Your task to perform on an android device: Go to Reddit.com Image 0: 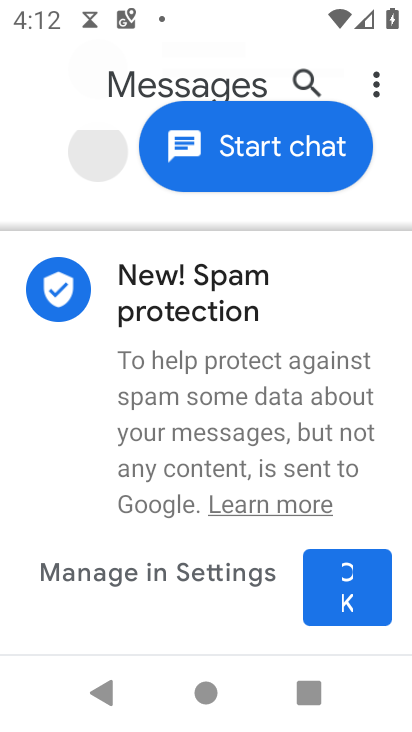
Step 0: click (259, 588)
Your task to perform on an android device: Go to Reddit.com Image 1: 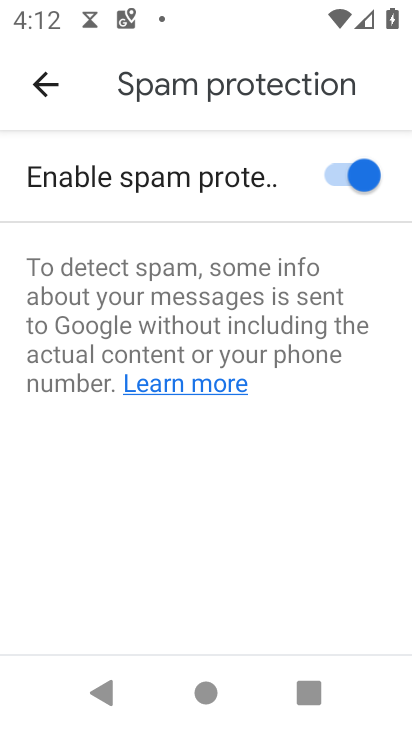
Step 1: press back button
Your task to perform on an android device: Go to Reddit.com Image 2: 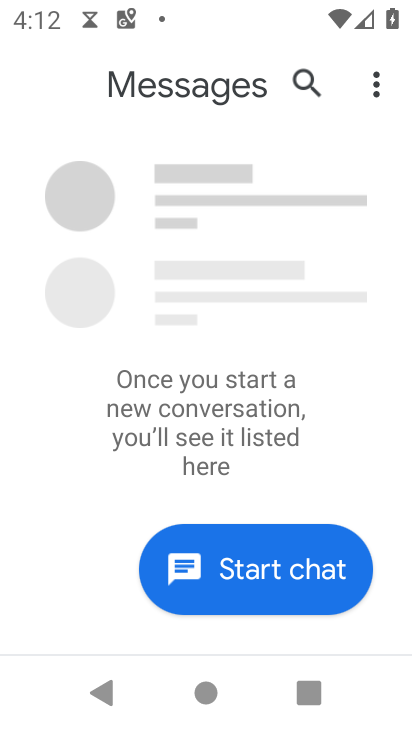
Step 2: press back button
Your task to perform on an android device: Go to Reddit.com Image 3: 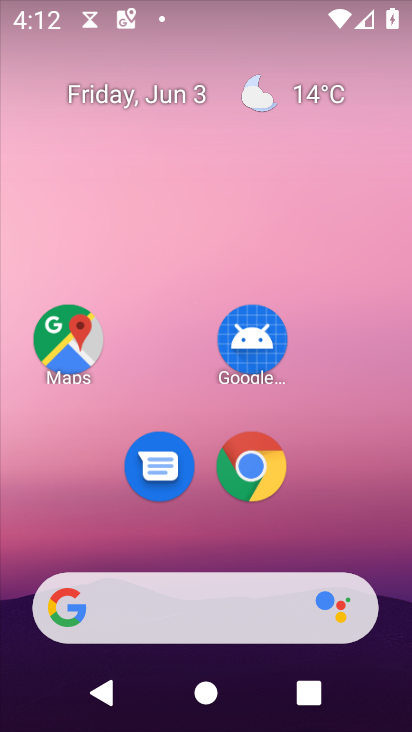
Step 3: click (186, 607)
Your task to perform on an android device: Go to Reddit.com Image 4: 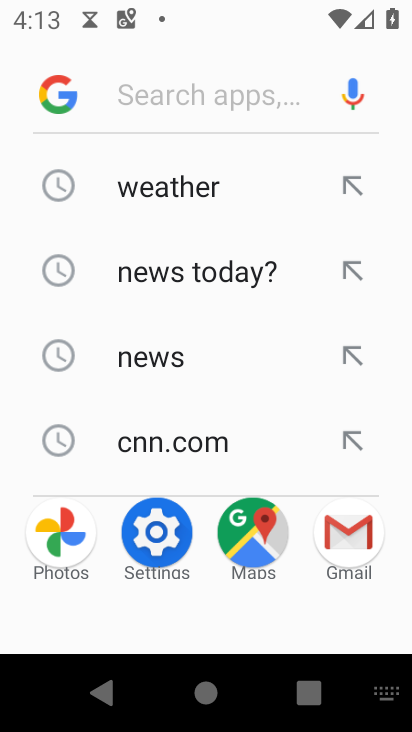
Step 4: type "Reddit.com"
Your task to perform on an android device: Go to Reddit.com Image 5: 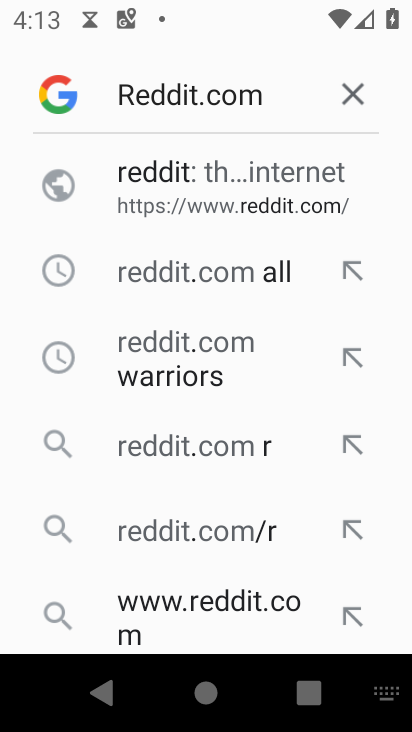
Step 5: click (190, 480)
Your task to perform on an android device: Go to Reddit.com Image 6: 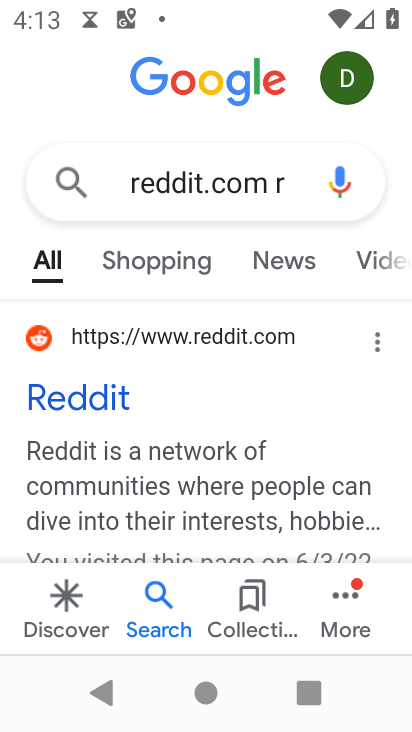
Step 6: click (137, 393)
Your task to perform on an android device: Go to Reddit.com Image 7: 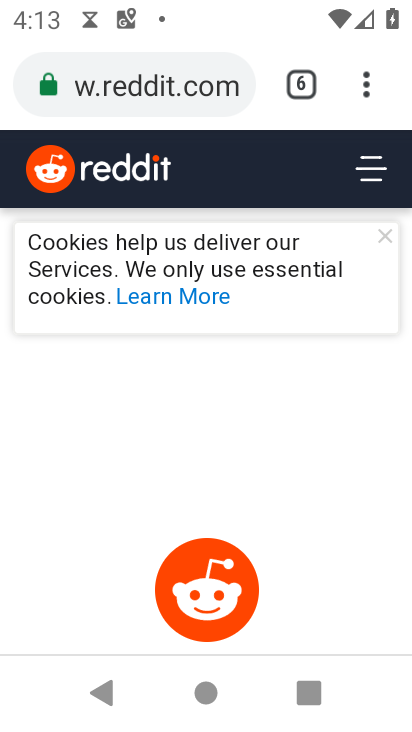
Step 7: task complete